Your task to perform on an android device: Open Google Image 0: 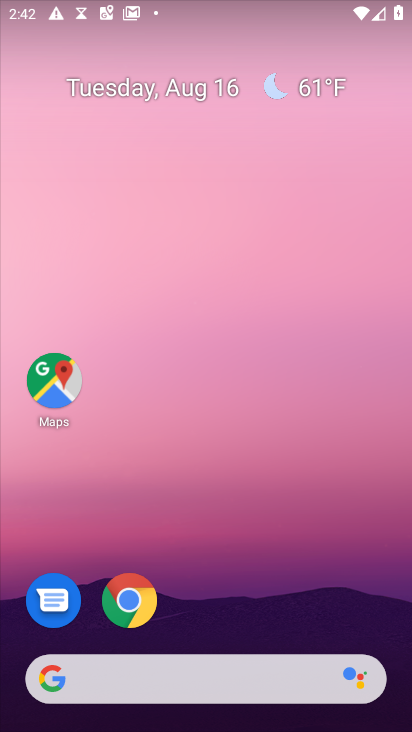
Step 0: drag from (231, 654) to (267, 263)
Your task to perform on an android device: Open Google Image 1: 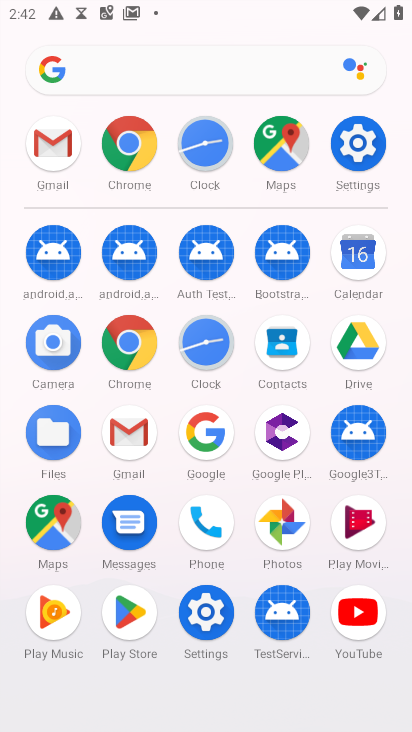
Step 1: click (210, 454)
Your task to perform on an android device: Open Google Image 2: 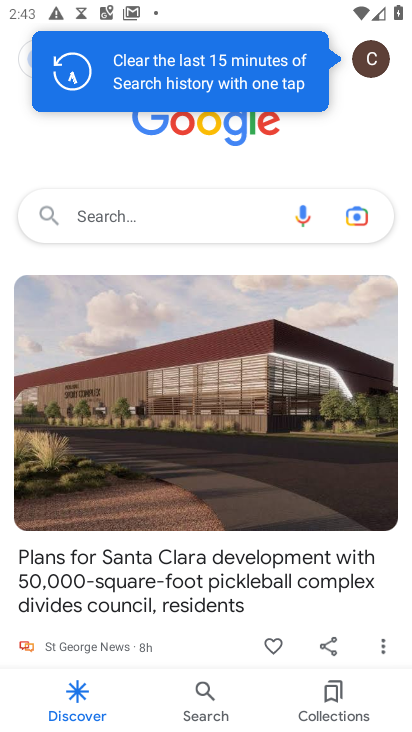
Step 2: task complete